Your task to perform on an android device: open device folders in google photos Image 0: 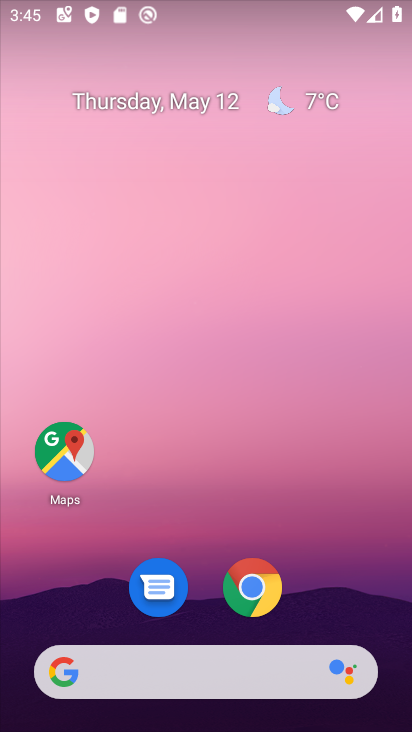
Step 0: drag from (318, 580) to (340, 213)
Your task to perform on an android device: open device folders in google photos Image 1: 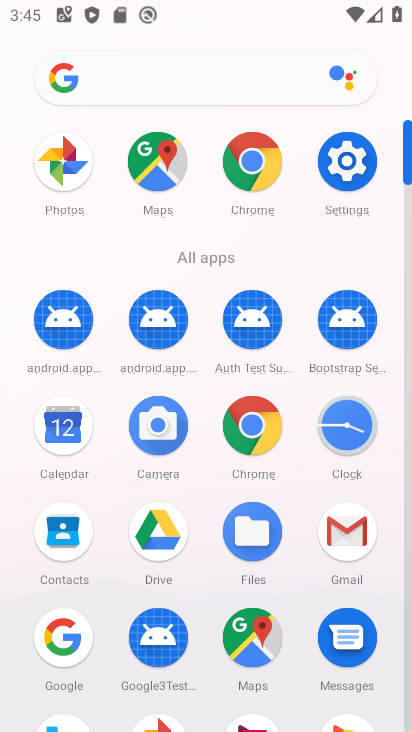
Step 1: drag from (315, 562) to (325, 286)
Your task to perform on an android device: open device folders in google photos Image 2: 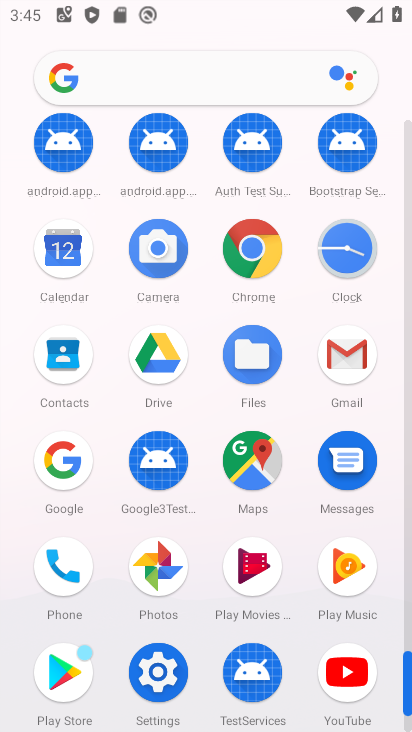
Step 2: click (160, 572)
Your task to perform on an android device: open device folders in google photos Image 3: 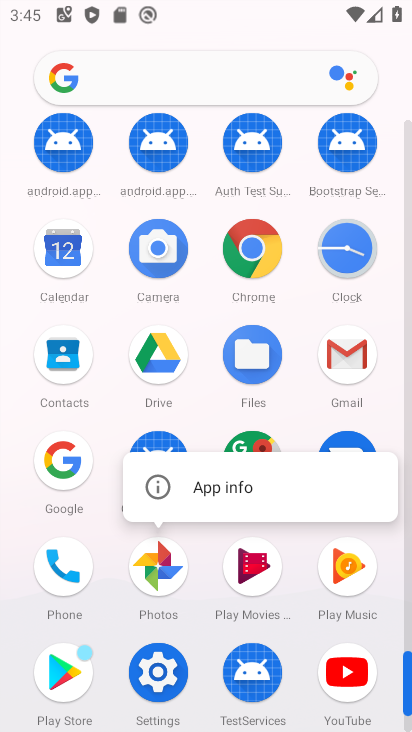
Step 3: click (169, 591)
Your task to perform on an android device: open device folders in google photos Image 4: 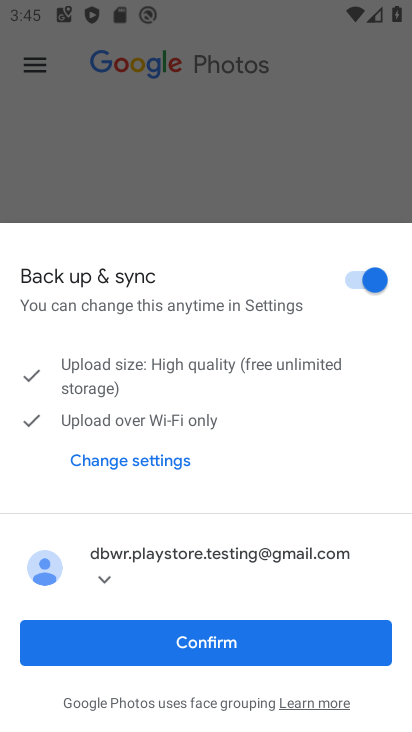
Step 4: click (185, 648)
Your task to perform on an android device: open device folders in google photos Image 5: 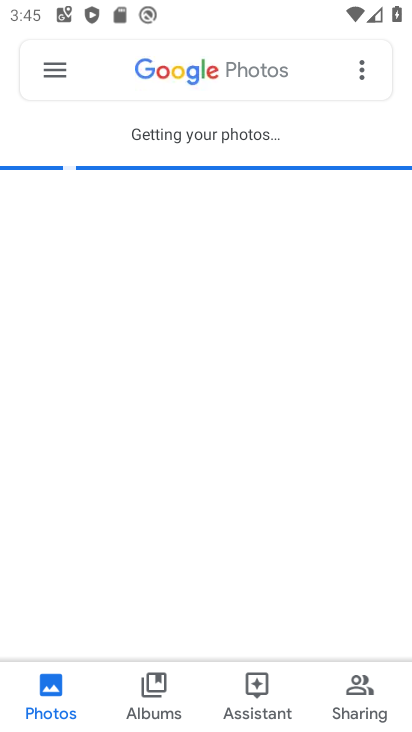
Step 5: click (33, 63)
Your task to perform on an android device: open device folders in google photos Image 6: 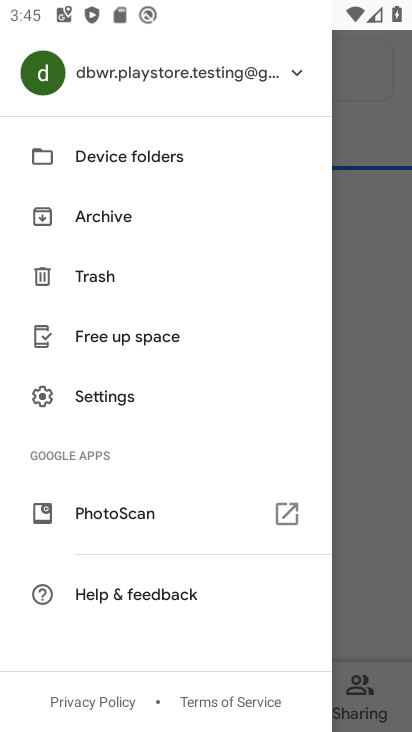
Step 6: click (121, 167)
Your task to perform on an android device: open device folders in google photos Image 7: 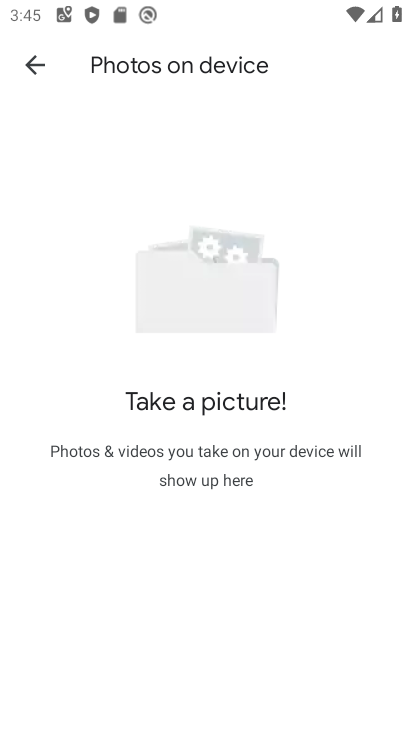
Step 7: task complete